Your task to perform on an android device: turn on airplane mode Image 0: 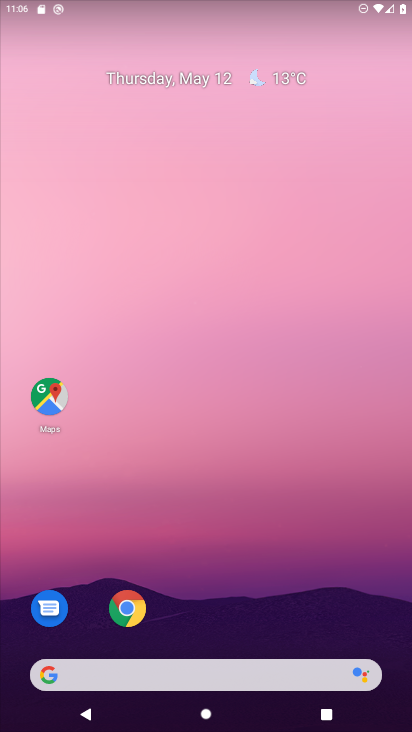
Step 0: drag from (242, 618) to (218, 167)
Your task to perform on an android device: turn on airplane mode Image 1: 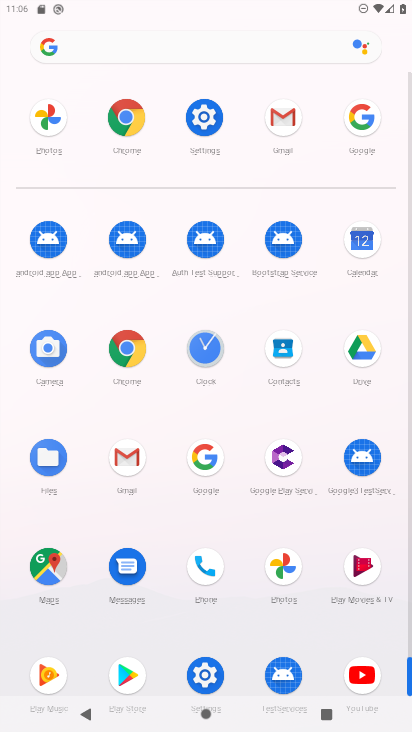
Step 1: click (210, 124)
Your task to perform on an android device: turn on airplane mode Image 2: 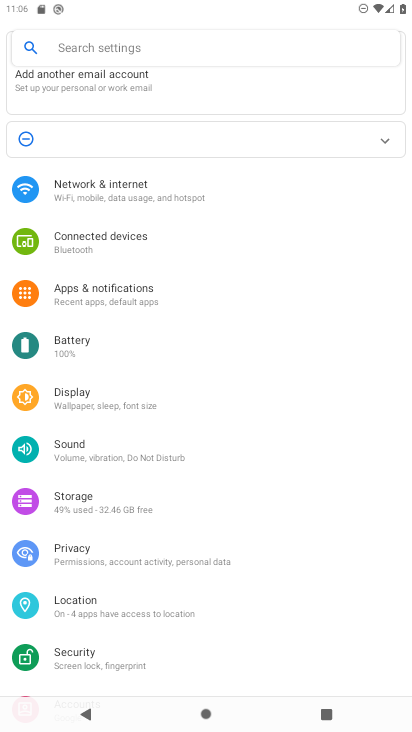
Step 2: click (120, 200)
Your task to perform on an android device: turn on airplane mode Image 3: 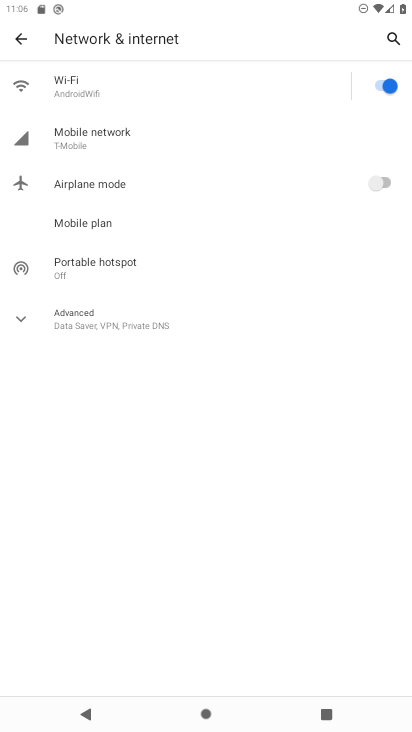
Step 3: click (382, 184)
Your task to perform on an android device: turn on airplane mode Image 4: 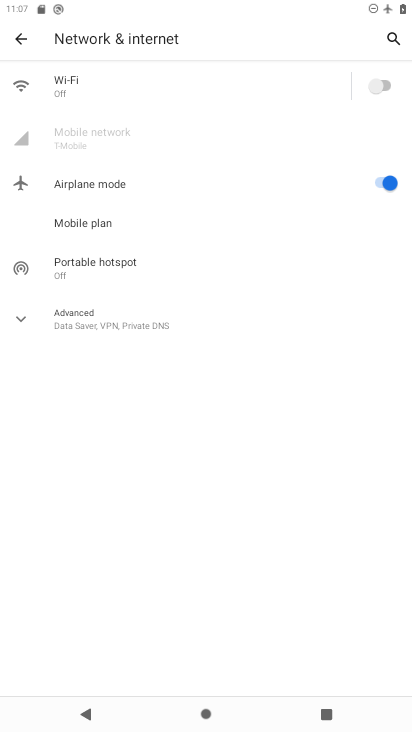
Step 4: task complete